Your task to perform on an android device: What's the weather today? Image 0: 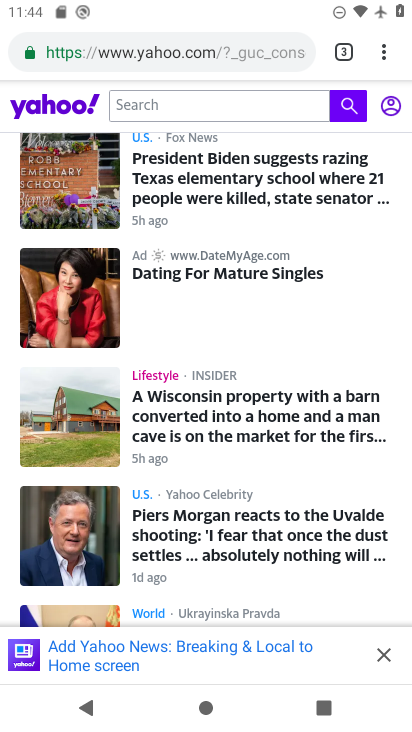
Step 0: task complete